Your task to perform on an android device: change timer sound Image 0: 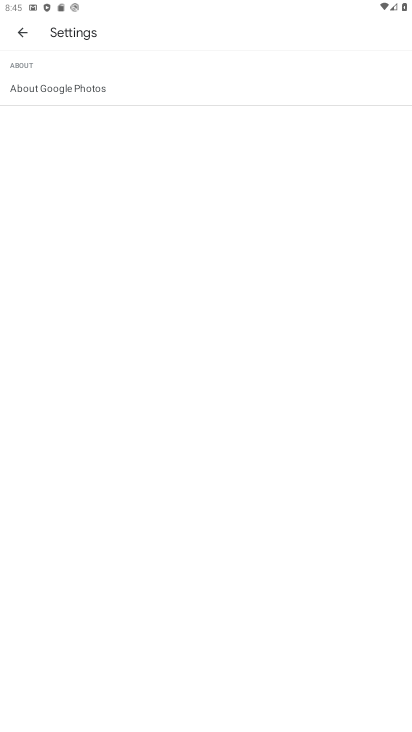
Step 0: press home button
Your task to perform on an android device: change timer sound Image 1: 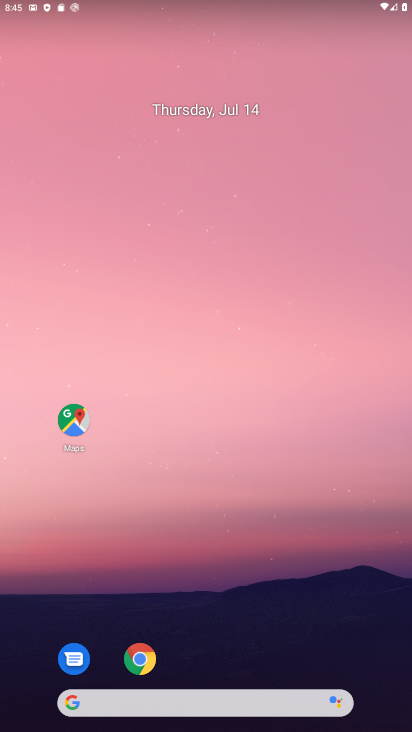
Step 1: drag from (258, 625) to (307, 92)
Your task to perform on an android device: change timer sound Image 2: 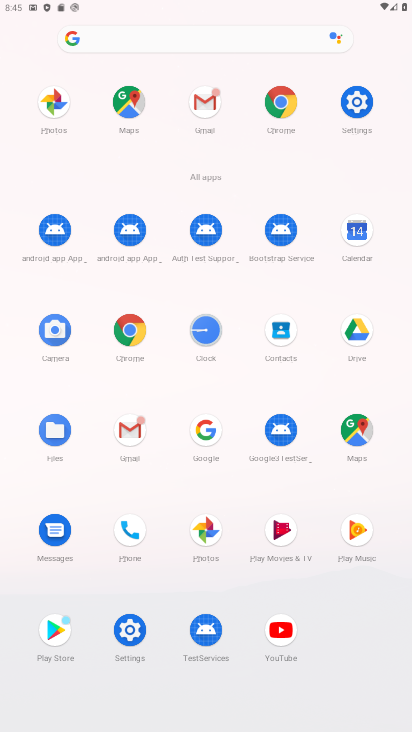
Step 2: click (214, 323)
Your task to perform on an android device: change timer sound Image 3: 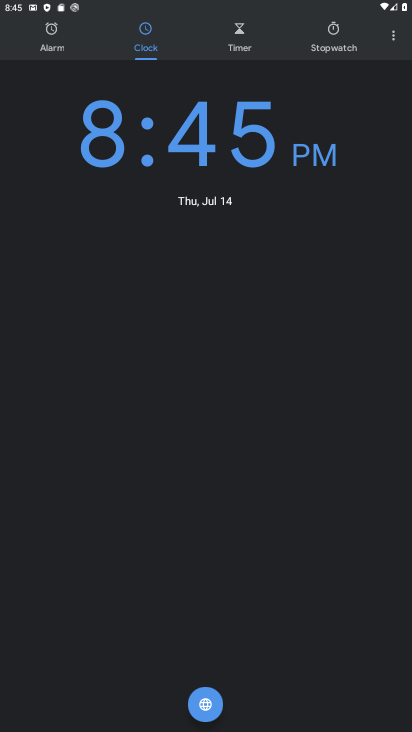
Step 3: click (394, 32)
Your task to perform on an android device: change timer sound Image 4: 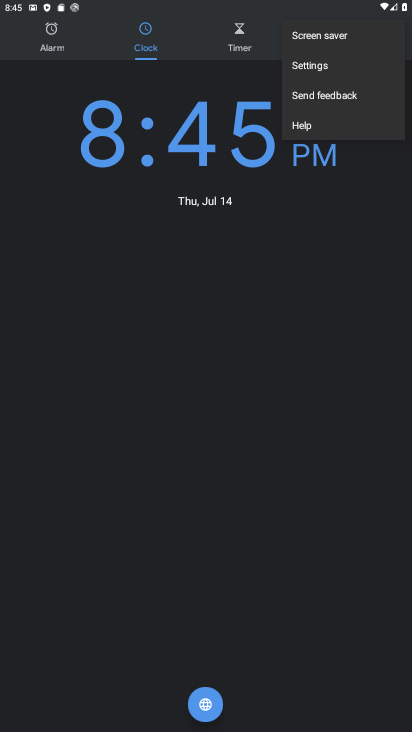
Step 4: click (328, 70)
Your task to perform on an android device: change timer sound Image 5: 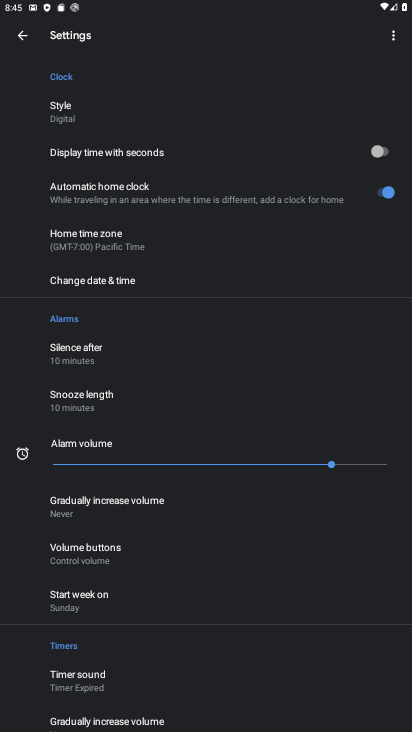
Step 5: click (66, 688)
Your task to perform on an android device: change timer sound Image 6: 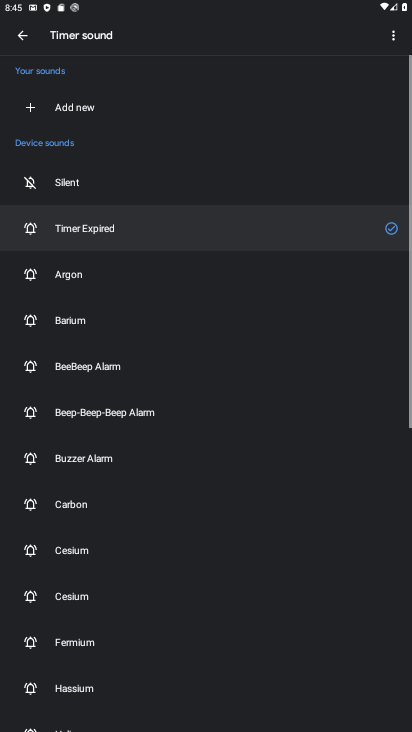
Step 6: click (99, 364)
Your task to perform on an android device: change timer sound Image 7: 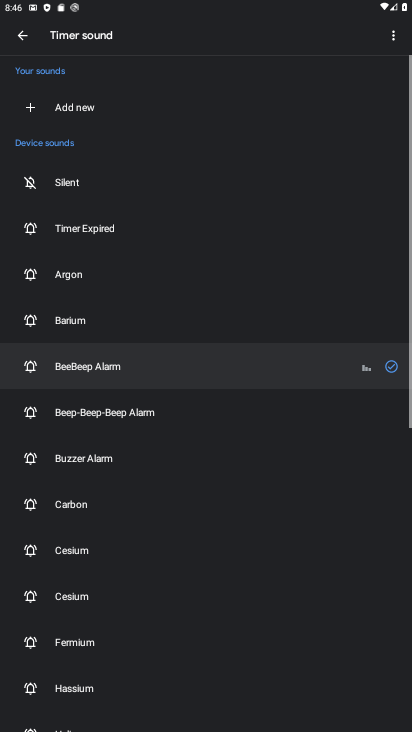
Step 7: task complete